Your task to perform on an android device: toggle notifications settings in the gmail app Image 0: 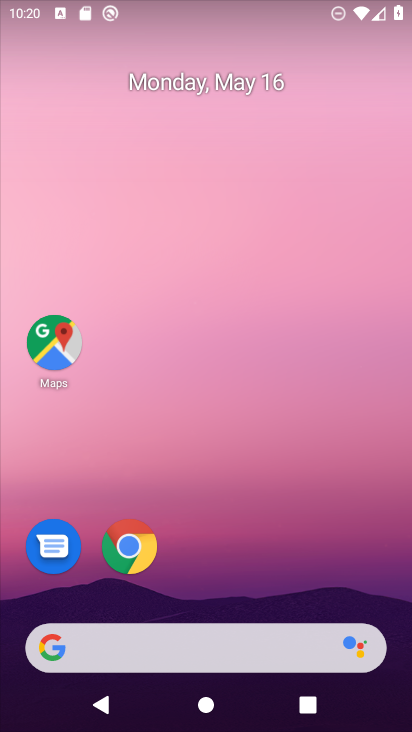
Step 0: drag from (252, 606) to (243, 308)
Your task to perform on an android device: toggle notifications settings in the gmail app Image 1: 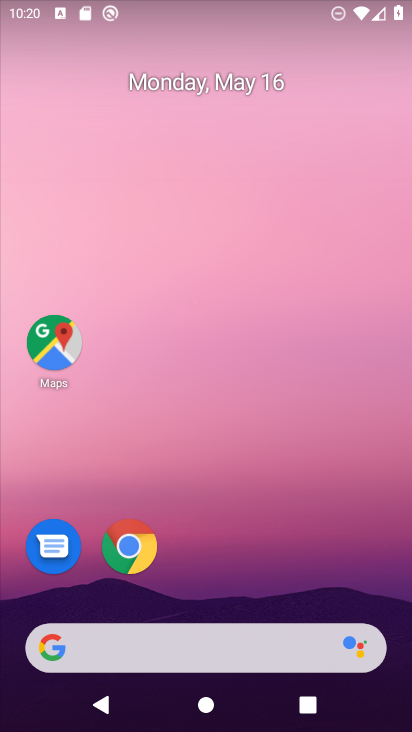
Step 1: drag from (287, 602) to (290, 163)
Your task to perform on an android device: toggle notifications settings in the gmail app Image 2: 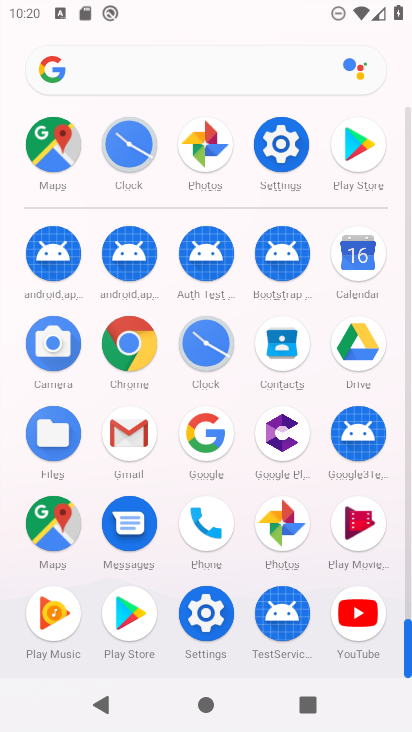
Step 2: click (125, 420)
Your task to perform on an android device: toggle notifications settings in the gmail app Image 3: 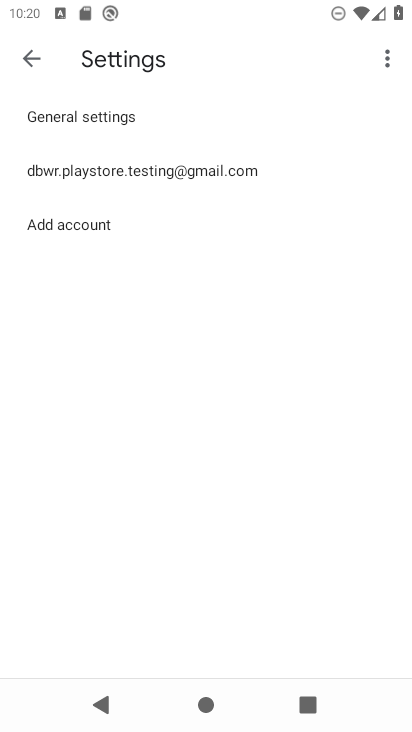
Step 3: click (198, 181)
Your task to perform on an android device: toggle notifications settings in the gmail app Image 4: 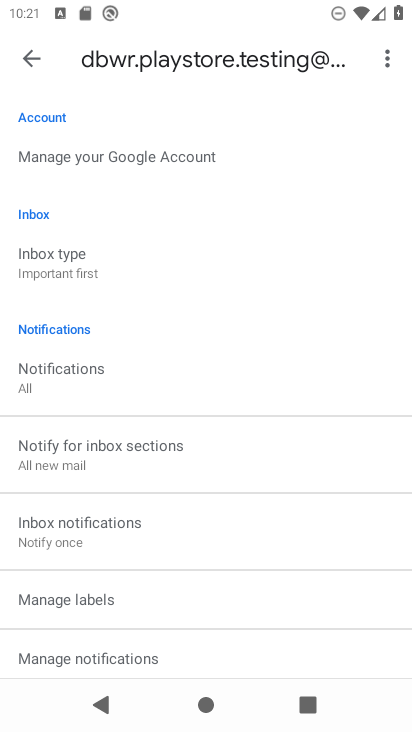
Step 4: click (47, 375)
Your task to perform on an android device: toggle notifications settings in the gmail app Image 5: 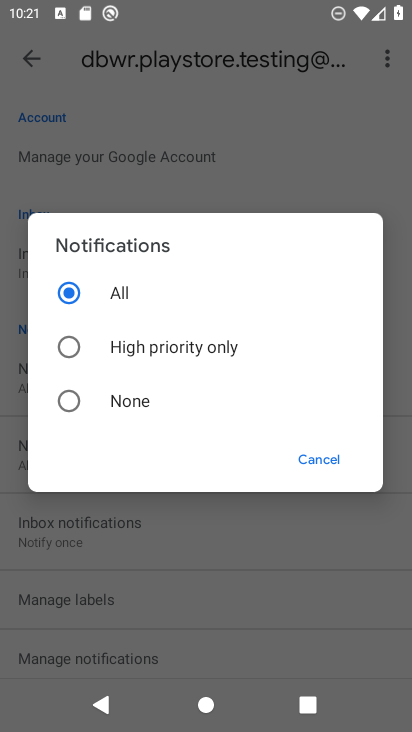
Step 5: click (203, 359)
Your task to perform on an android device: toggle notifications settings in the gmail app Image 6: 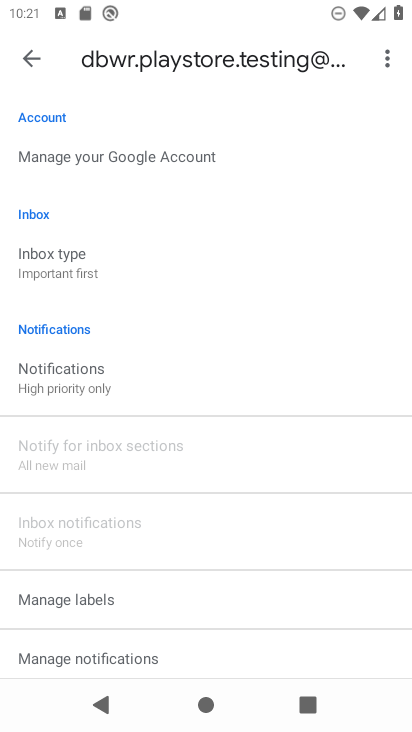
Step 6: task complete